Your task to perform on an android device: Open network settings Image 0: 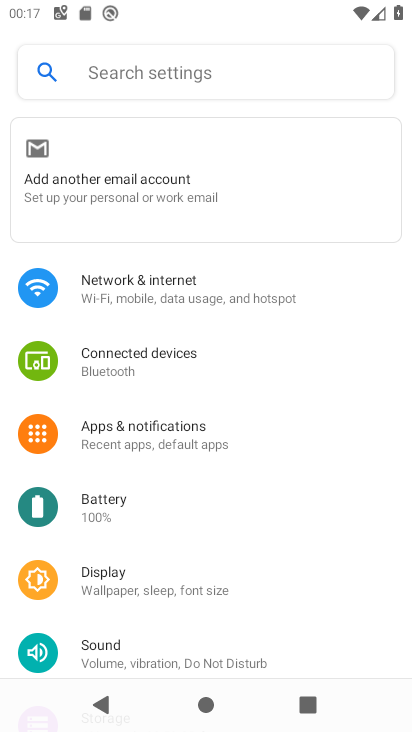
Step 0: press home button
Your task to perform on an android device: Open network settings Image 1: 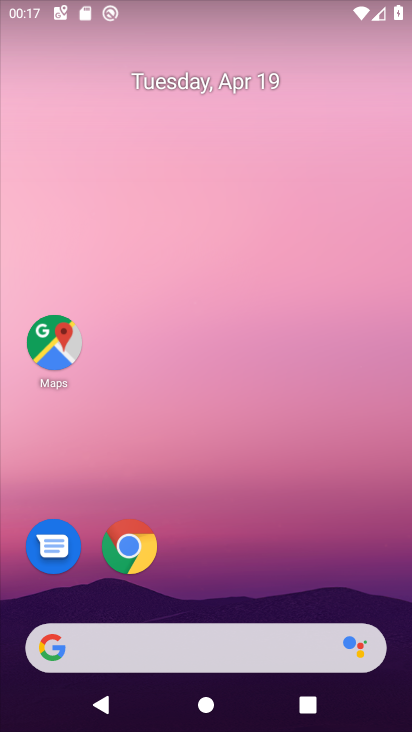
Step 1: drag from (220, 519) to (254, 117)
Your task to perform on an android device: Open network settings Image 2: 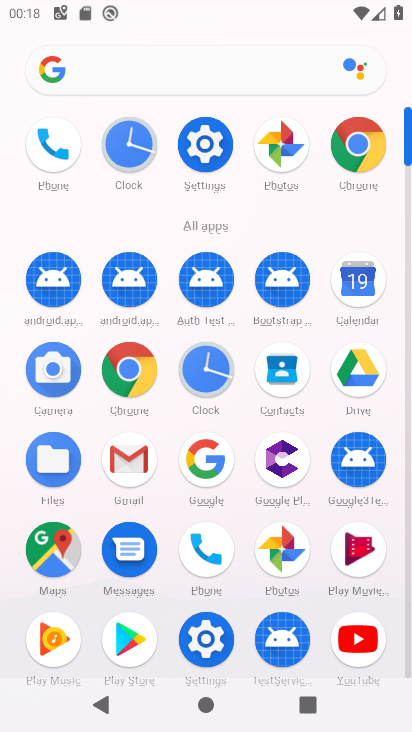
Step 2: click (205, 139)
Your task to perform on an android device: Open network settings Image 3: 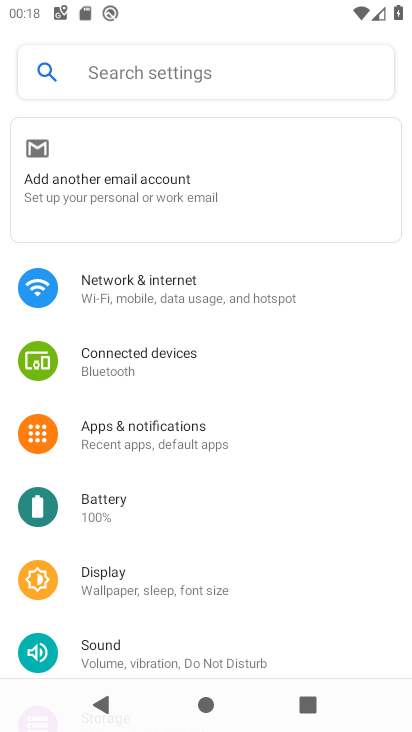
Step 3: click (215, 286)
Your task to perform on an android device: Open network settings Image 4: 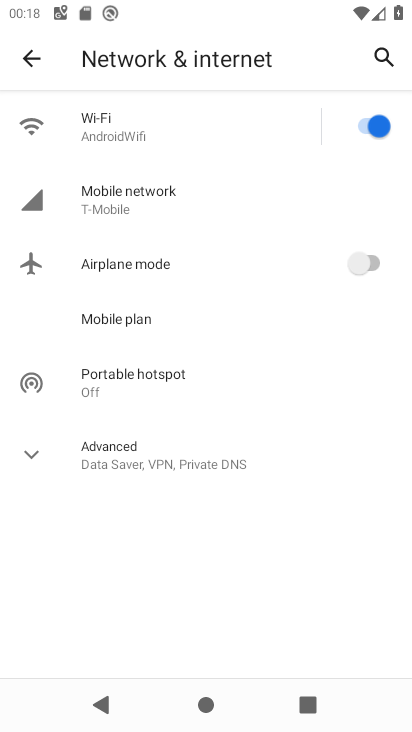
Step 4: click (126, 456)
Your task to perform on an android device: Open network settings Image 5: 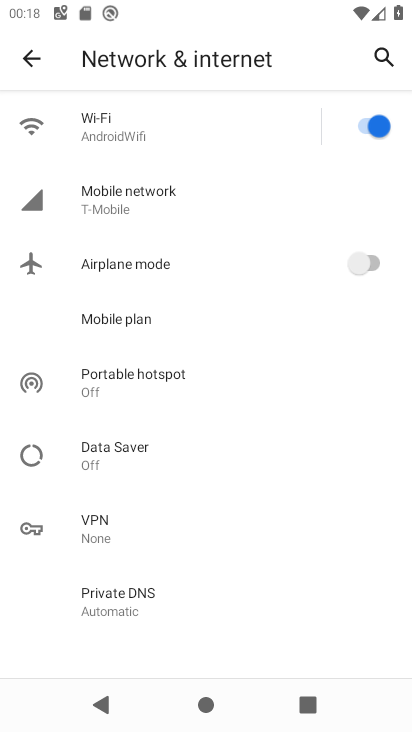
Step 5: task complete